Your task to perform on an android device: Open Chrome and go to the settings page Image 0: 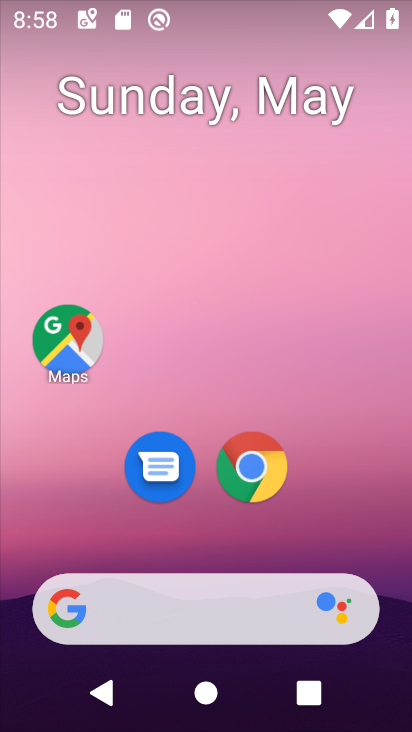
Step 0: drag from (364, 520) to (294, 114)
Your task to perform on an android device: Open Chrome and go to the settings page Image 1: 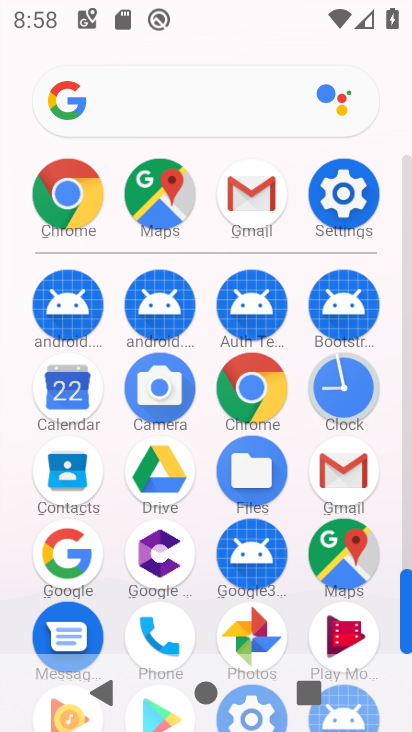
Step 1: click (269, 394)
Your task to perform on an android device: Open Chrome and go to the settings page Image 2: 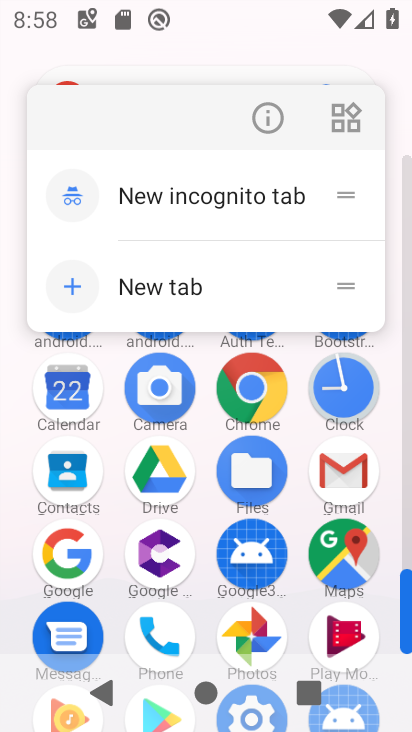
Step 2: click (269, 397)
Your task to perform on an android device: Open Chrome and go to the settings page Image 3: 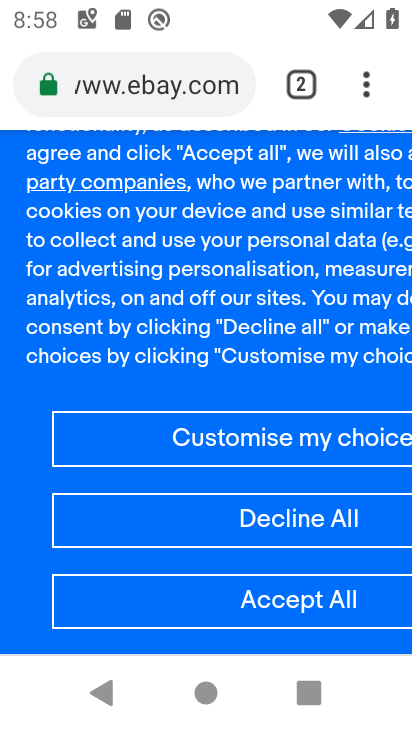
Step 3: task complete